Your task to perform on an android device: Open Youtube and go to "Your channel" Image 0: 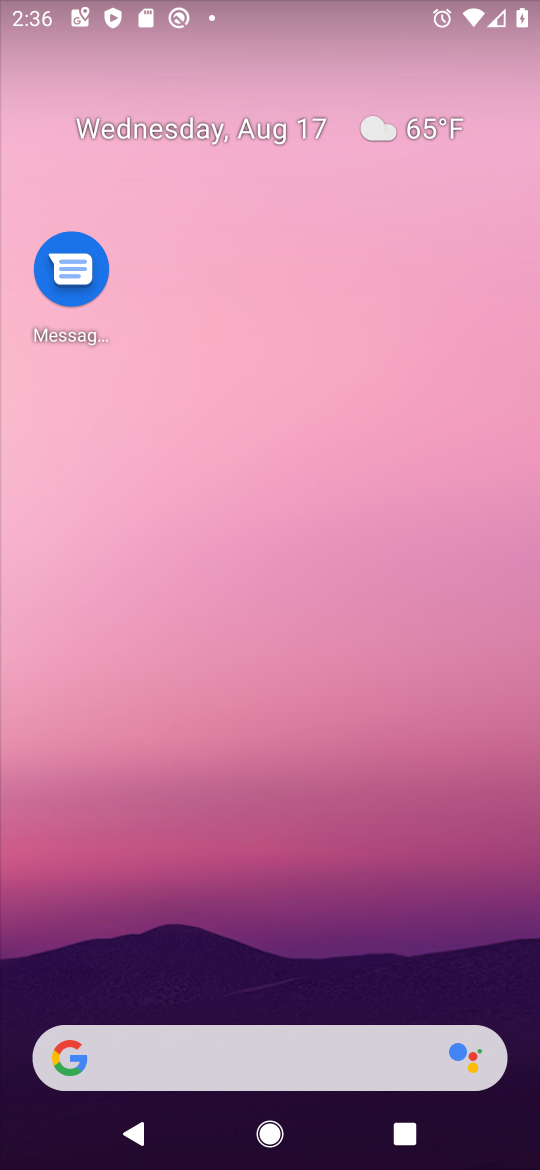
Step 0: drag from (310, 991) to (428, 30)
Your task to perform on an android device: Open Youtube and go to "Your channel" Image 1: 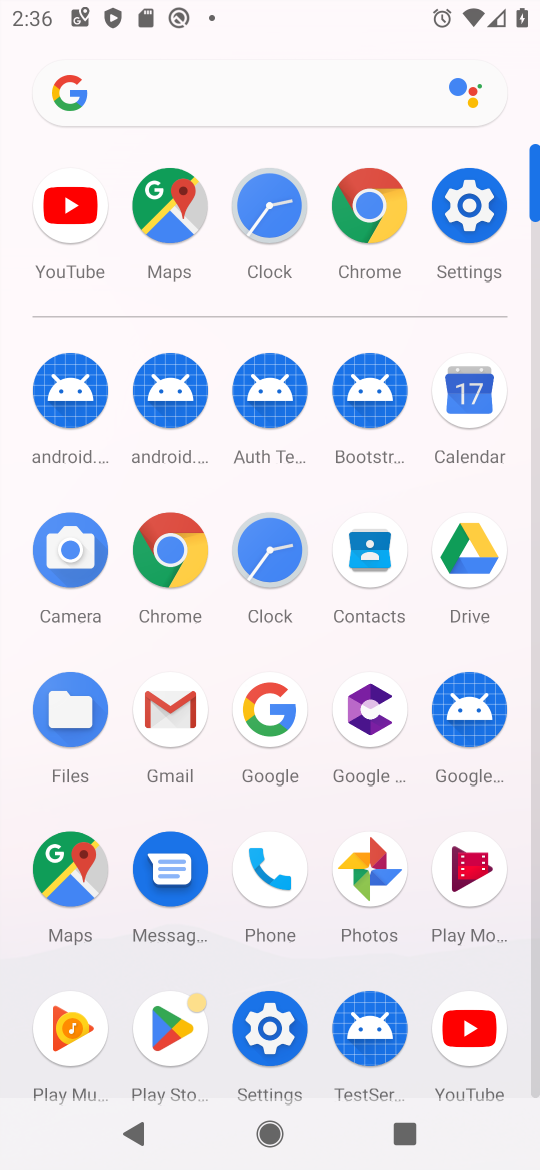
Step 1: click (474, 1028)
Your task to perform on an android device: Open Youtube and go to "Your channel" Image 2: 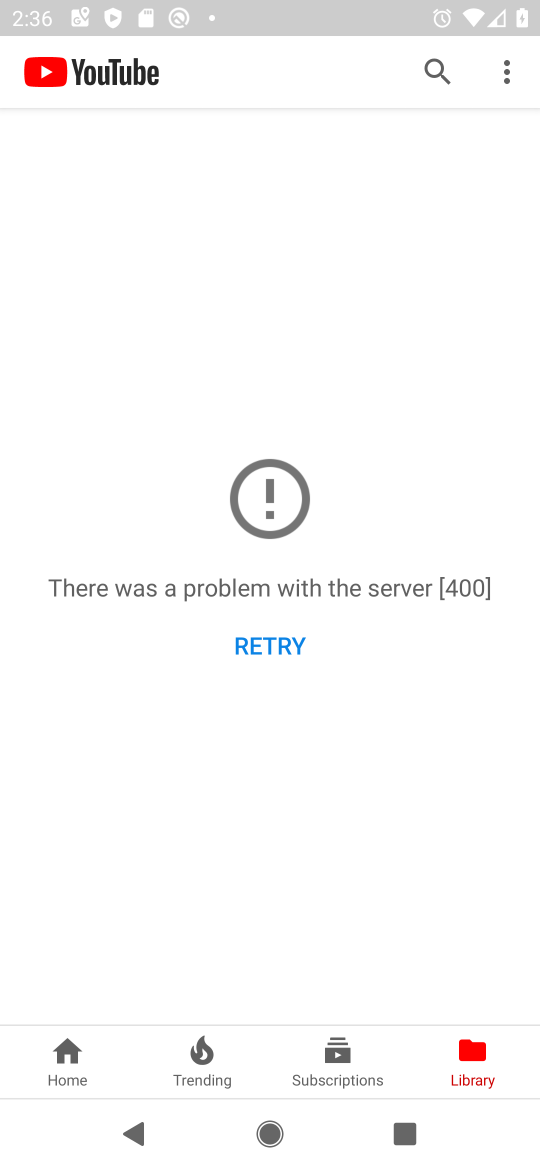
Step 2: click (71, 1069)
Your task to perform on an android device: Open Youtube and go to "Your channel" Image 3: 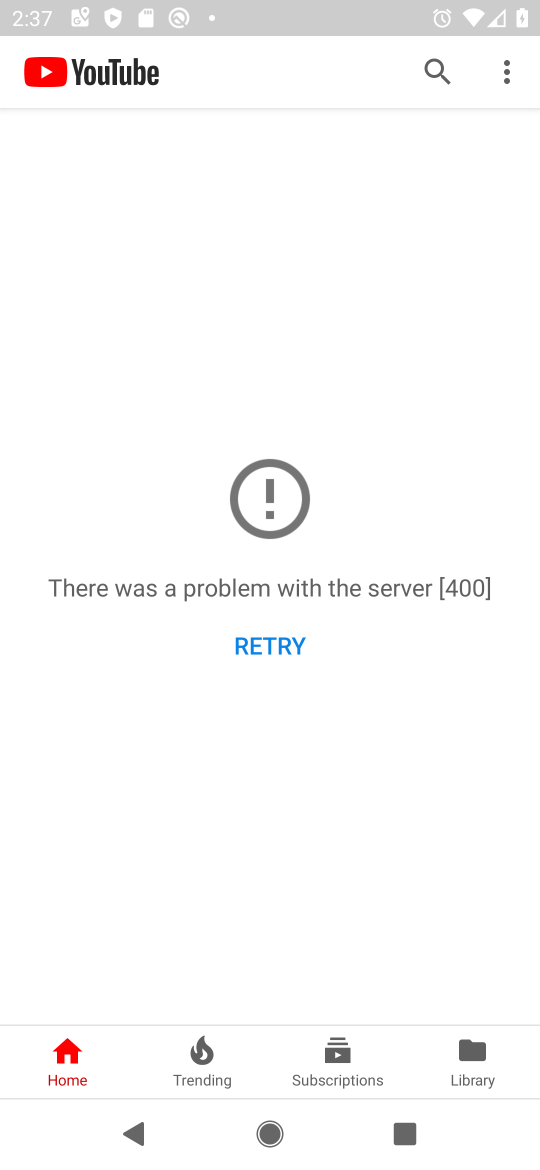
Step 3: click (505, 78)
Your task to perform on an android device: Open Youtube and go to "Your channel" Image 4: 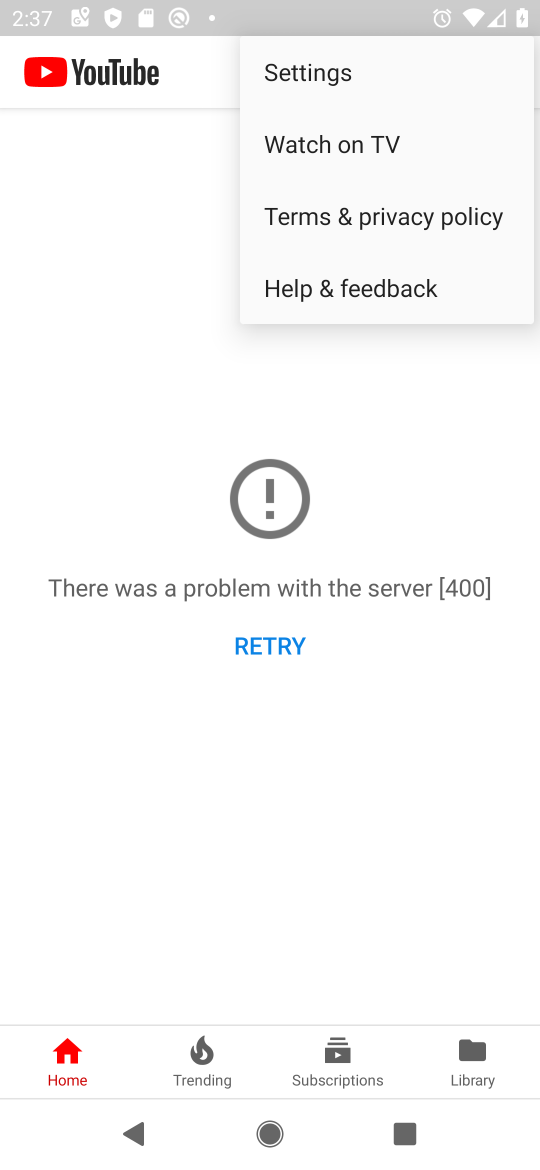
Step 4: task complete